Your task to perform on an android device: check storage Image 0: 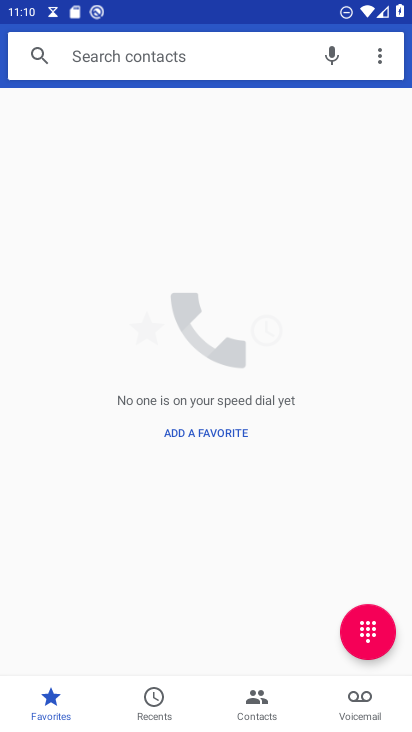
Step 0: press home button
Your task to perform on an android device: check storage Image 1: 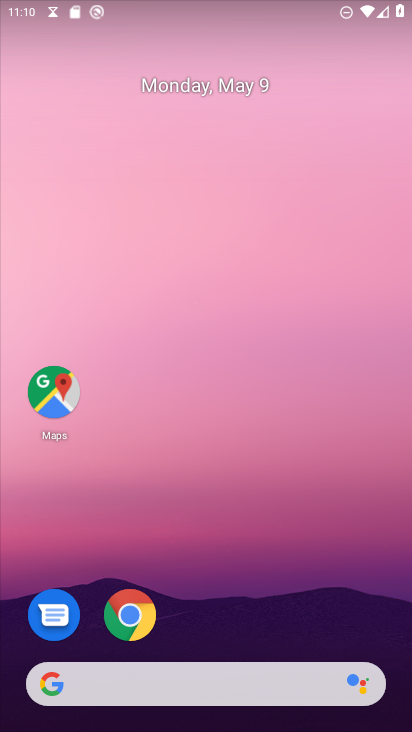
Step 1: drag from (216, 726) to (204, 282)
Your task to perform on an android device: check storage Image 2: 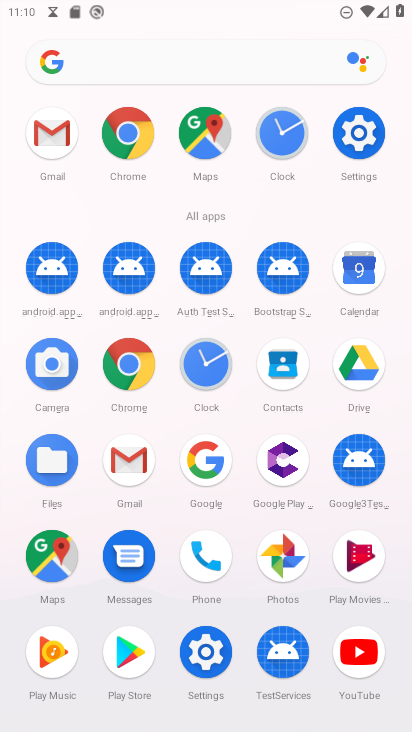
Step 2: click (354, 136)
Your task to perform on an android device: check storage Image 3: 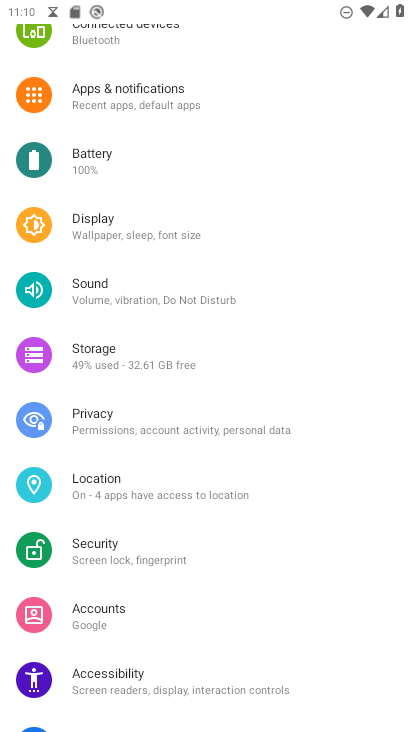
Step 3: click (110, 361)
Your task to perform on an android device: check storage Image 4: 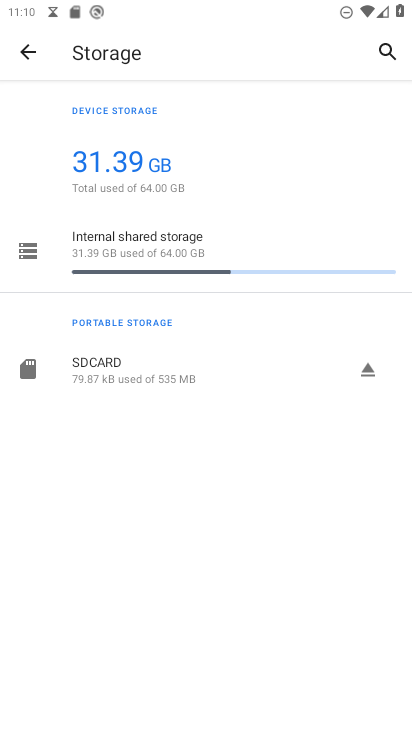
Step 4: task complete